Your task to perform on an android device: View the shopping cart on newegg.com. Search for razer blade on newegg.com, select the first entry, and add it to the cart. Image 0: 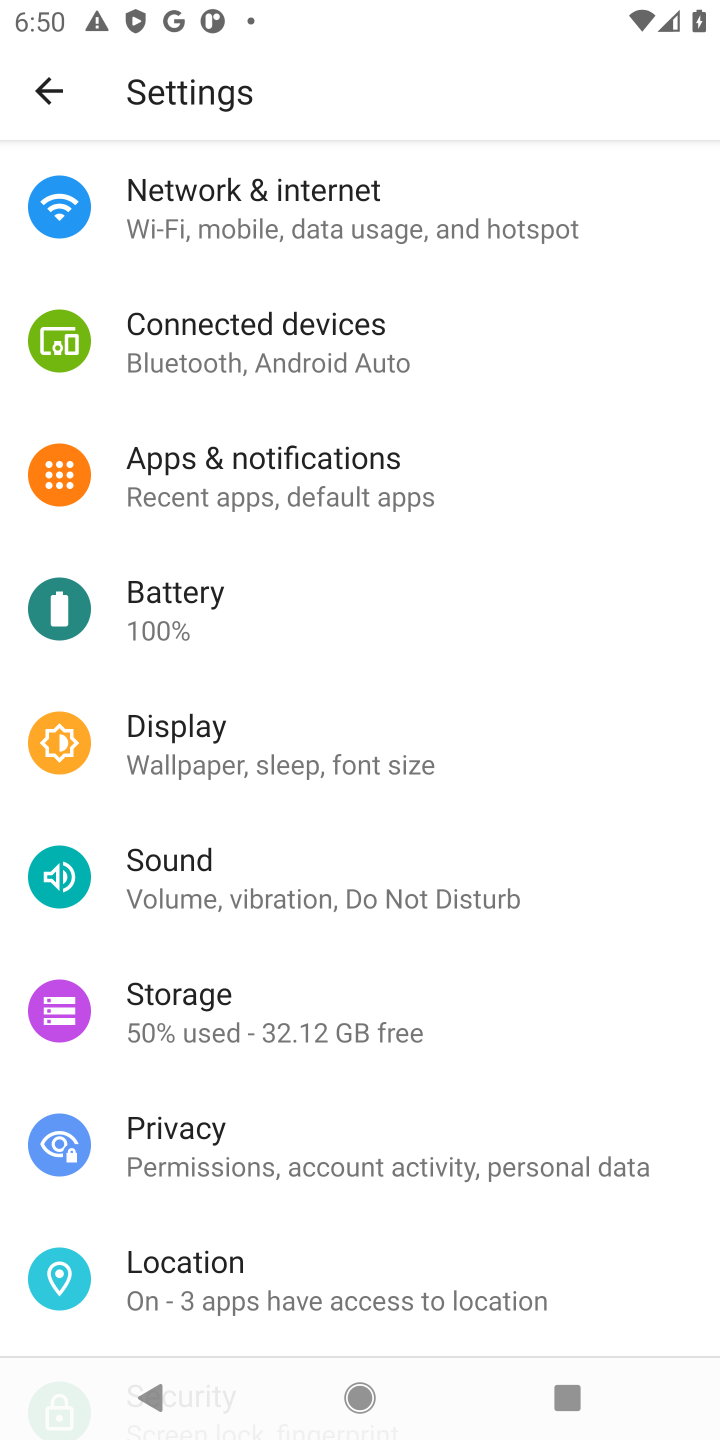
Step 0: press home button
Your task to perform on an android device: View the shopping cart on newegg.com. Search for razer blade on newegg.com, select the first entry, and add it to the cart. Image 1: 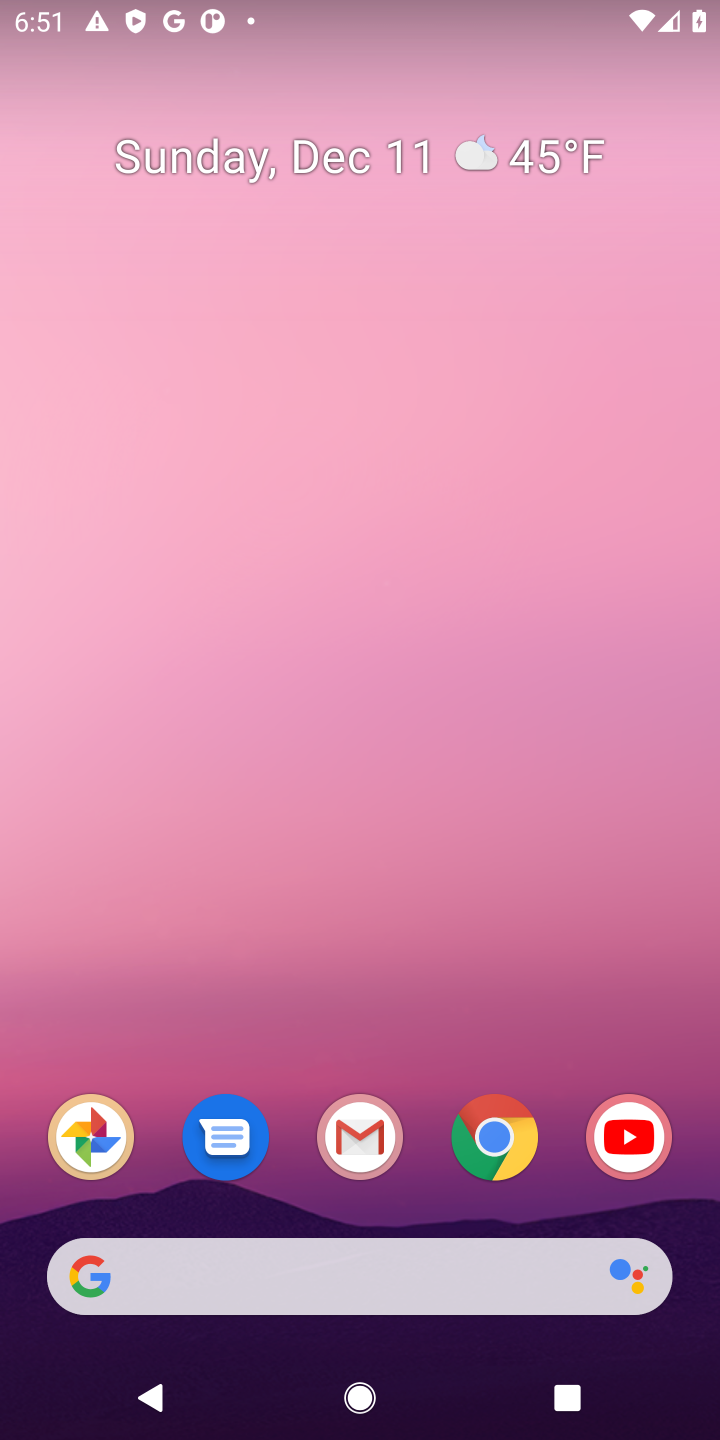
Step 1: click (516, 1127)
Your task to perform on an android device: View the shopping cart on newegg.com. Search for razer blade on newegg.com, select the first entry, and add it to the cart. Image 2: 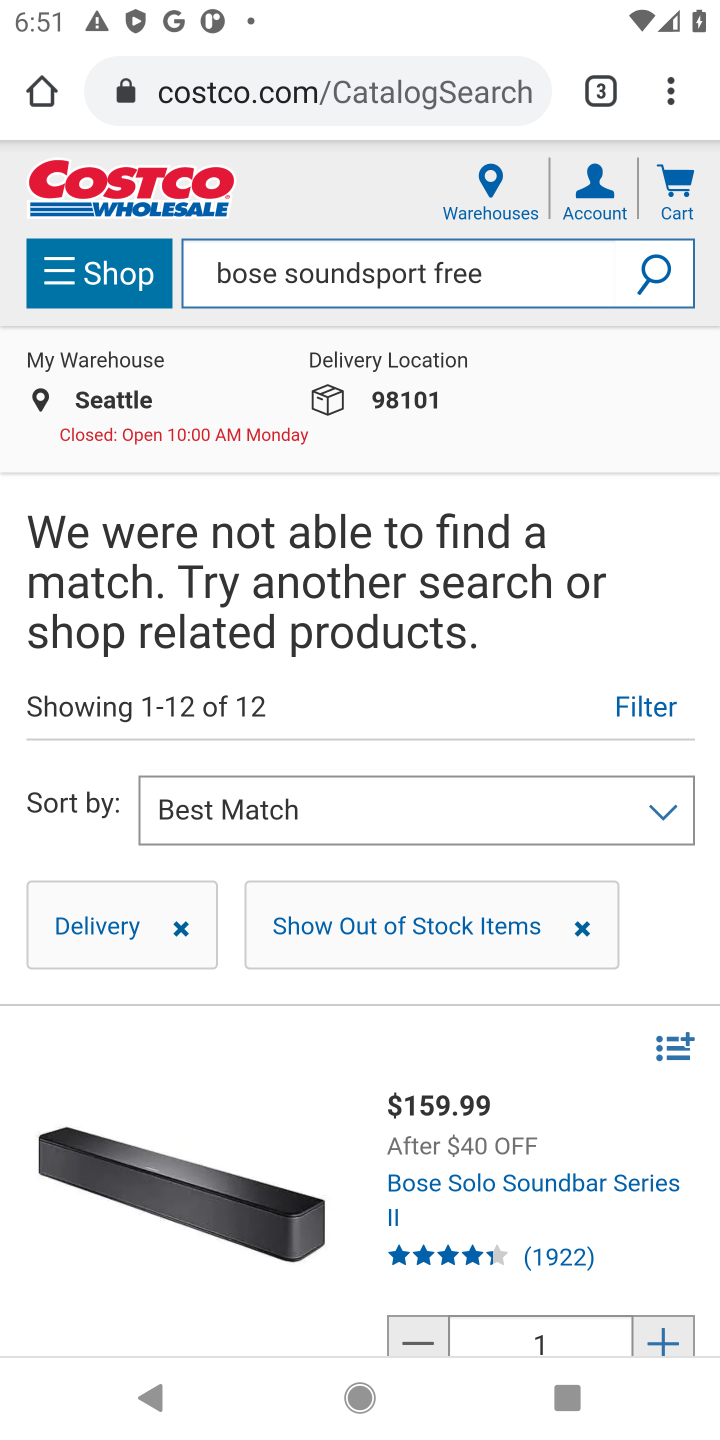
Step 2: click (359, 101)
Your task to perform on an android device: View the shopping cart on newegg.com. Search for razer blade on newegg.com, select the first entry, and add it to the cart. Image 3: 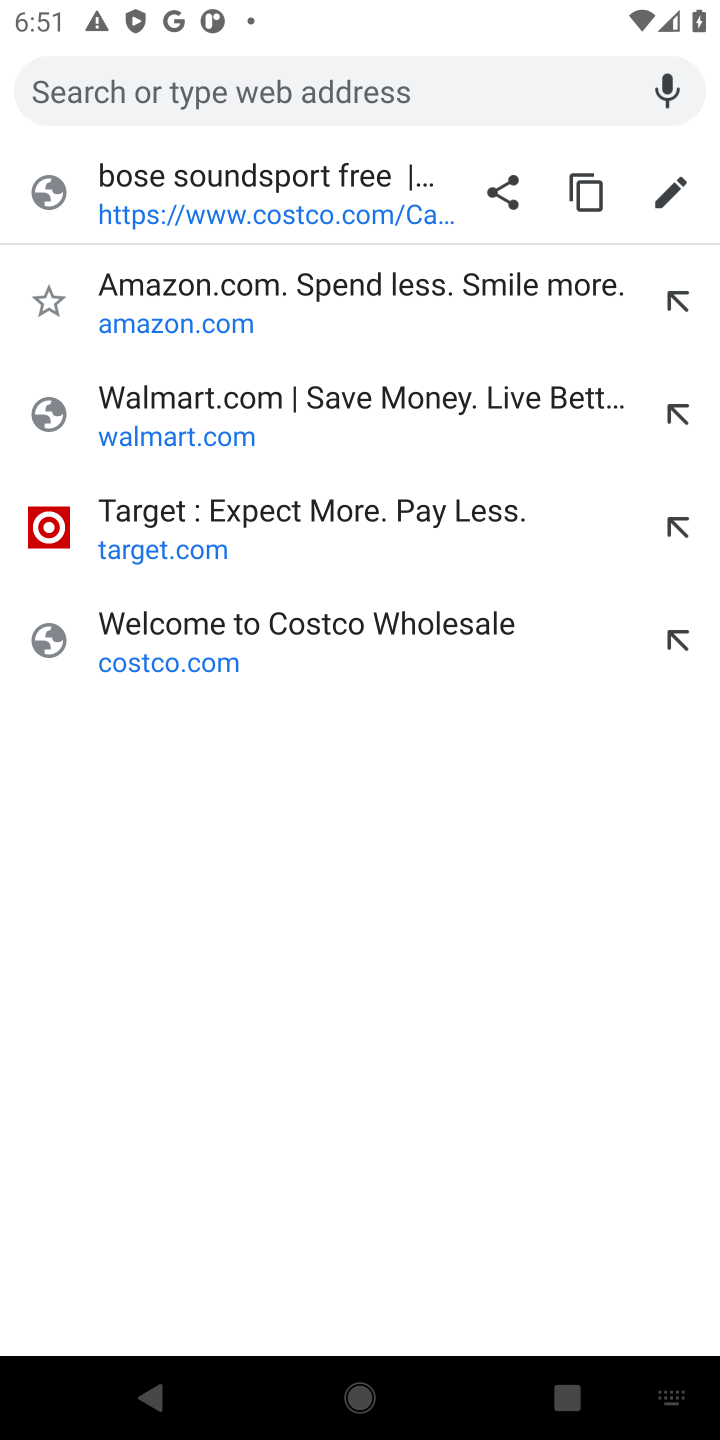
Step 3: type "newegg"
Your task to perform on an android device: View the shopping cart on newegg.com. Search for razer blade on newegg.com, select the first entry, and add it to the cart. Image 4: 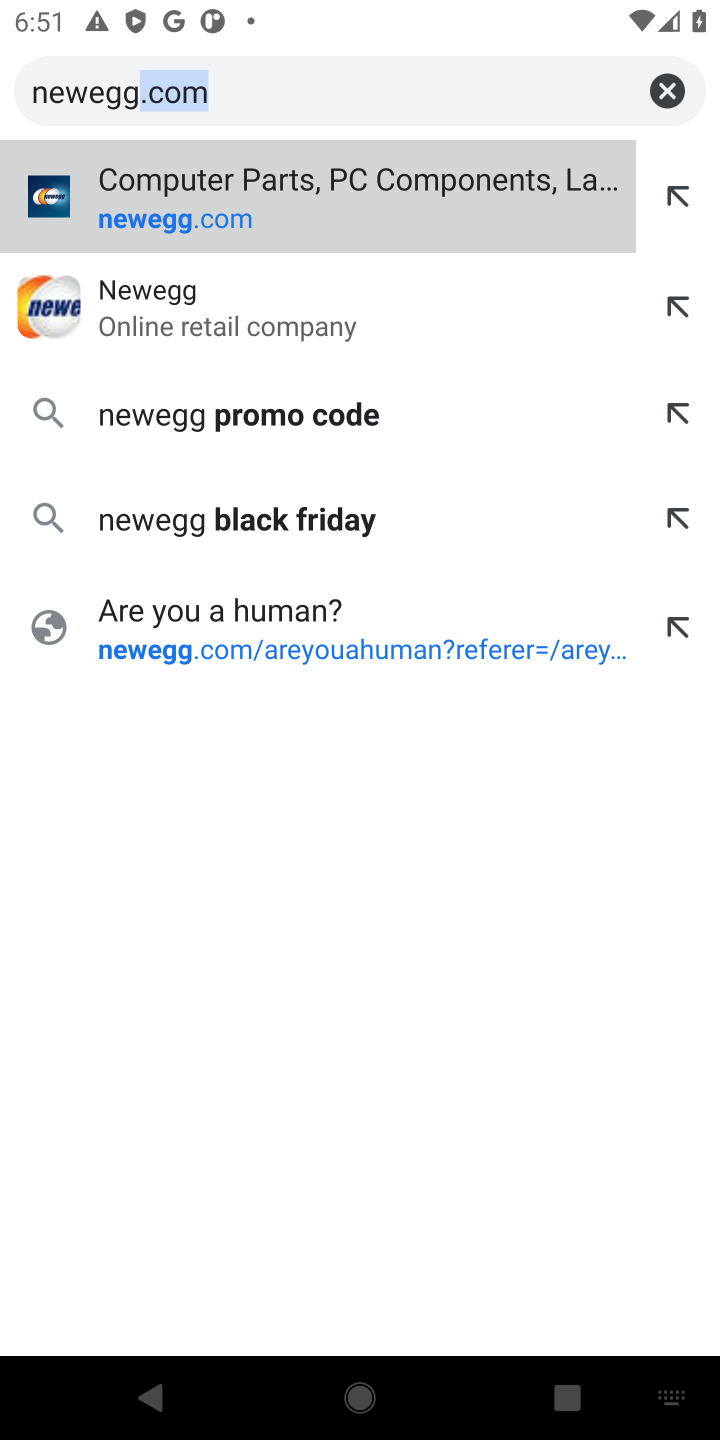
Step 4: click (250, 322)
Your task to perform on an android device: View the shopping cart on newegg.com. Search for razer blade on newegg.com, select the first entry, and add it to the cart. Image 5: 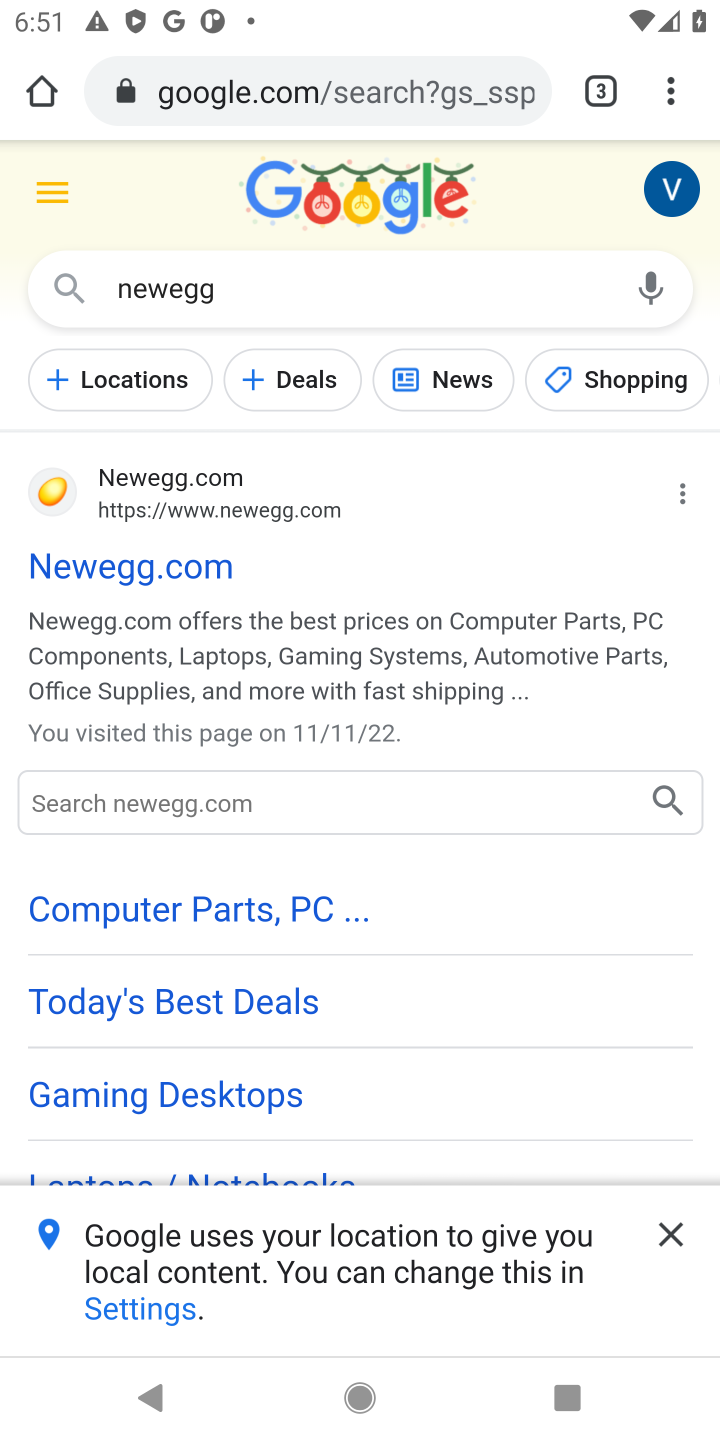
Step 5: click (145, 571)
Your task to perform on an android device: View the shopping cart on newegg.com. Search for razer blade on newegg.com, select the first entry, and add it to the cart. Image 6: 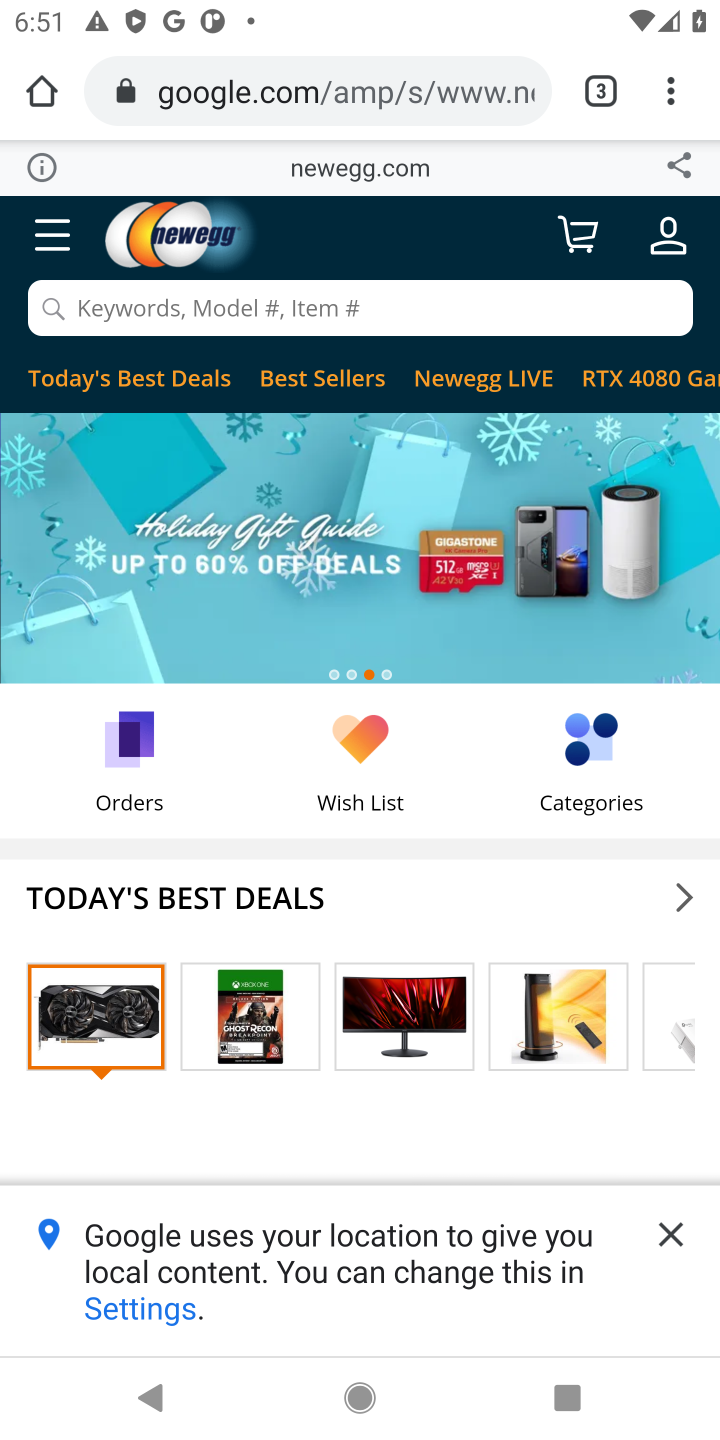
Step 6: click (573, 235)
Your task to perform on an android device: View the shopping cart on newegg.com. Search for razer blade on newegg.com, select the first entry, and add it to the cart. Image 7: 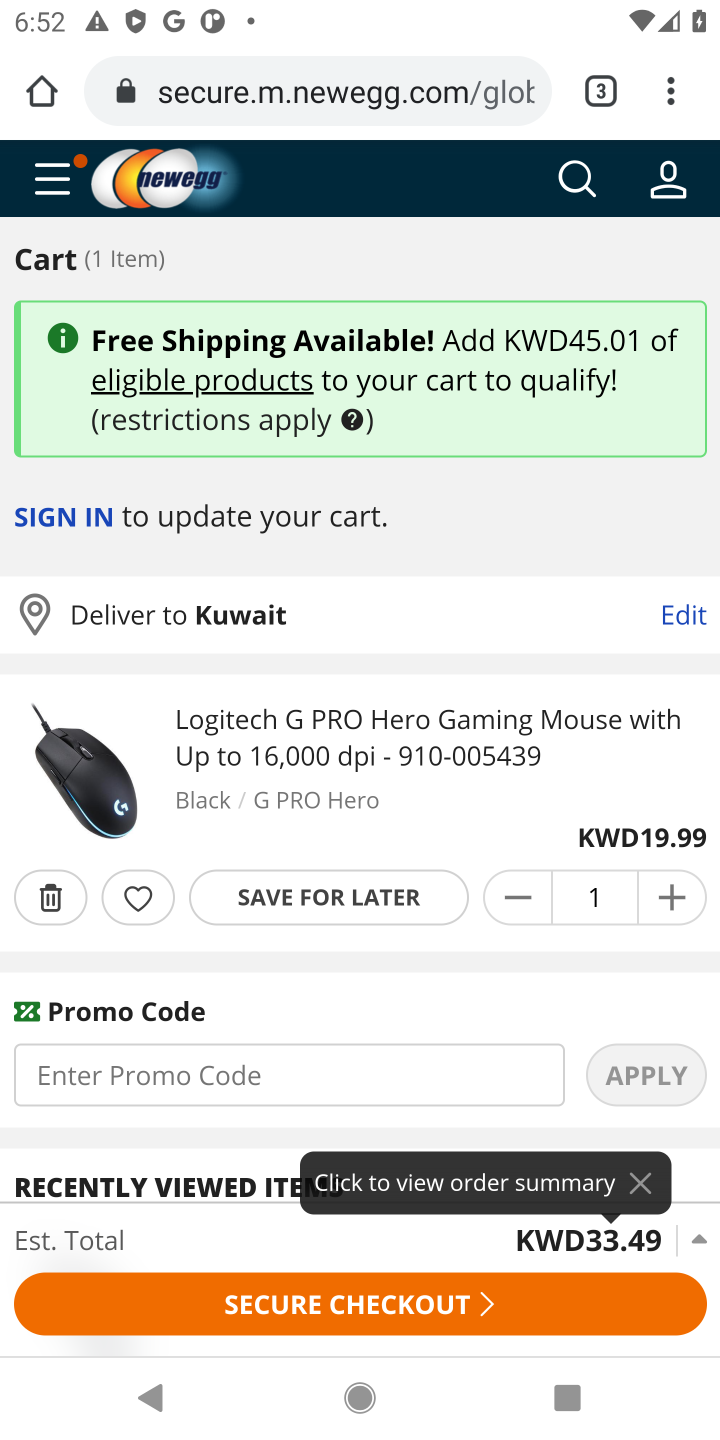
Step 7: click (596, 190)
Your task to perform on an android device: View the shopping cart on newegg.com. Search for razer blade on newegg.com, select the first entry, and add it to the cart. Image 8: 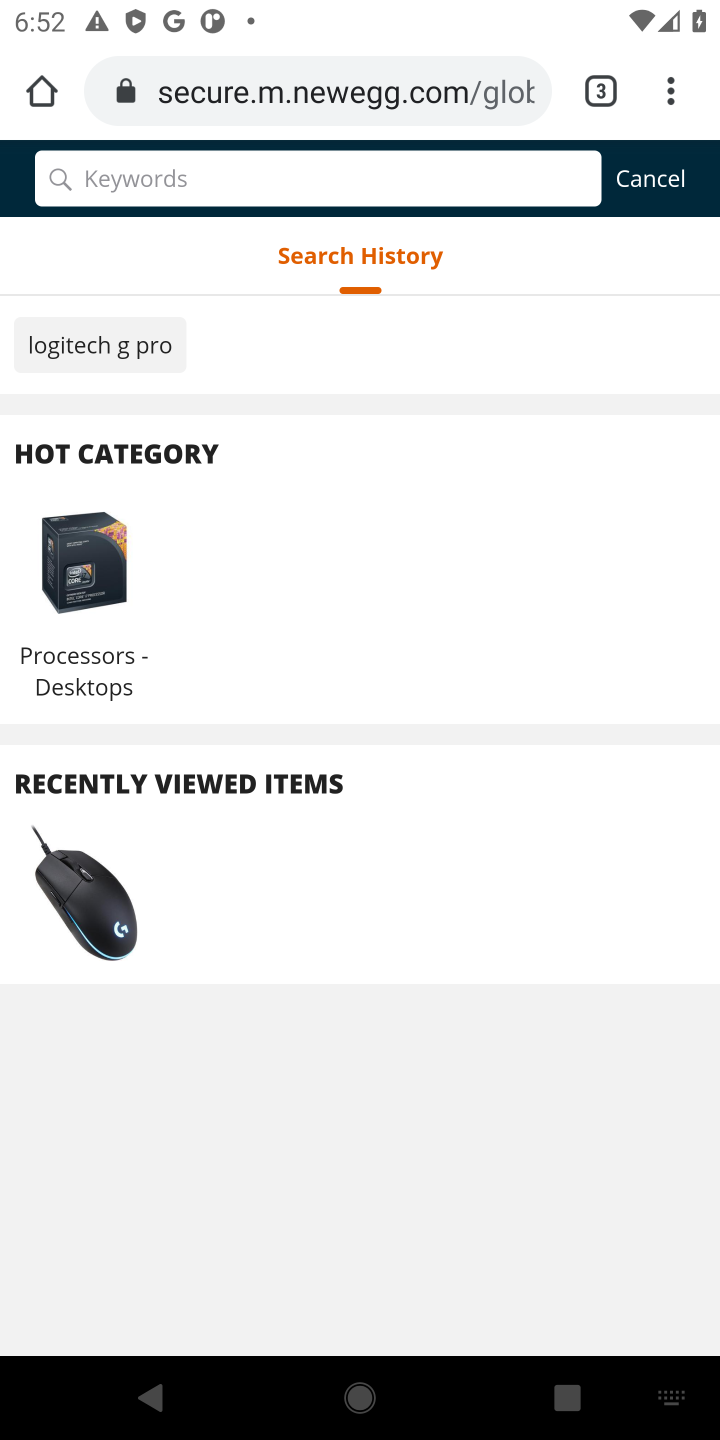
Step 8: type "razer blade"
Your task to perform on an android device: View the shopping cart on newegg.com. Search for razer blade on newegg.com, select the first entry, and add it to the cart. Image 9: 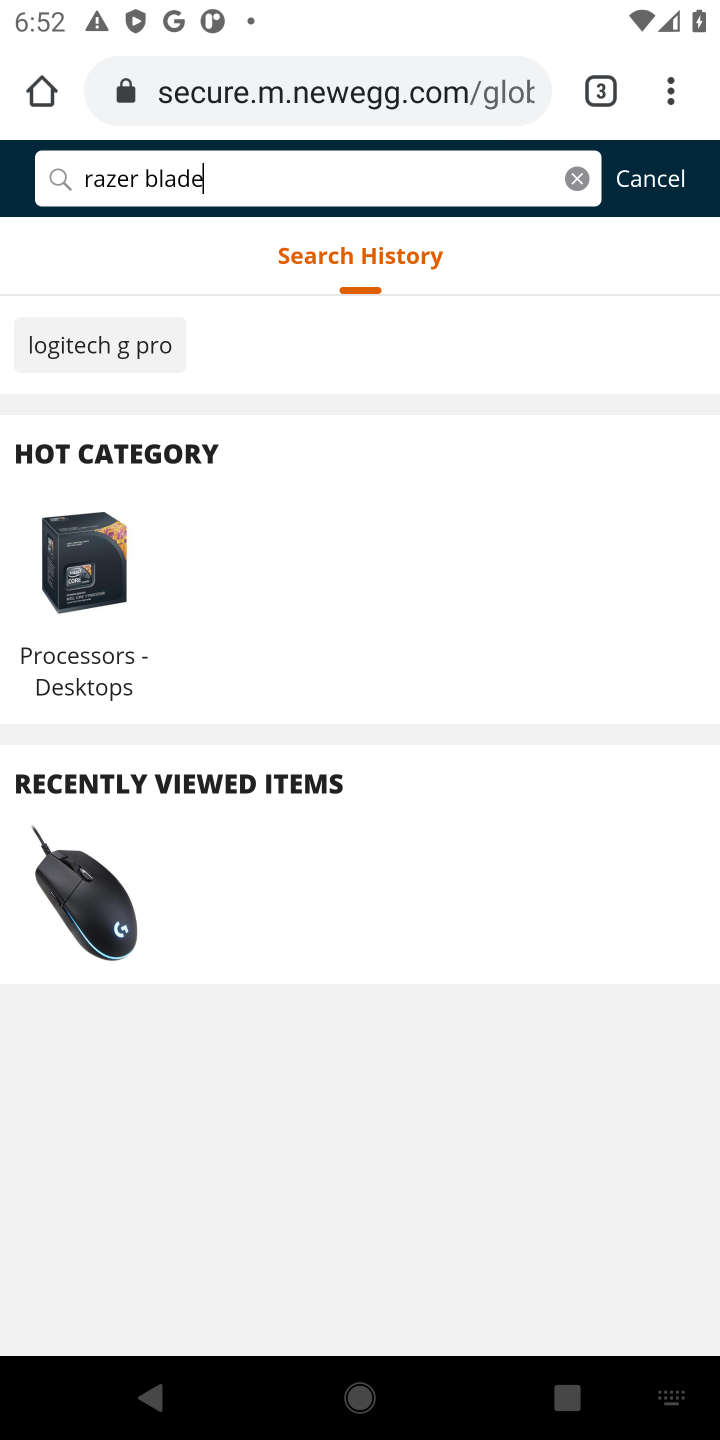
Step 9: type ""
Your task to perform on an android device: View the shopping cart on newegg.com. Search for razer blade on newegg.com, select the first entry, and add it to the cart. Image 10: 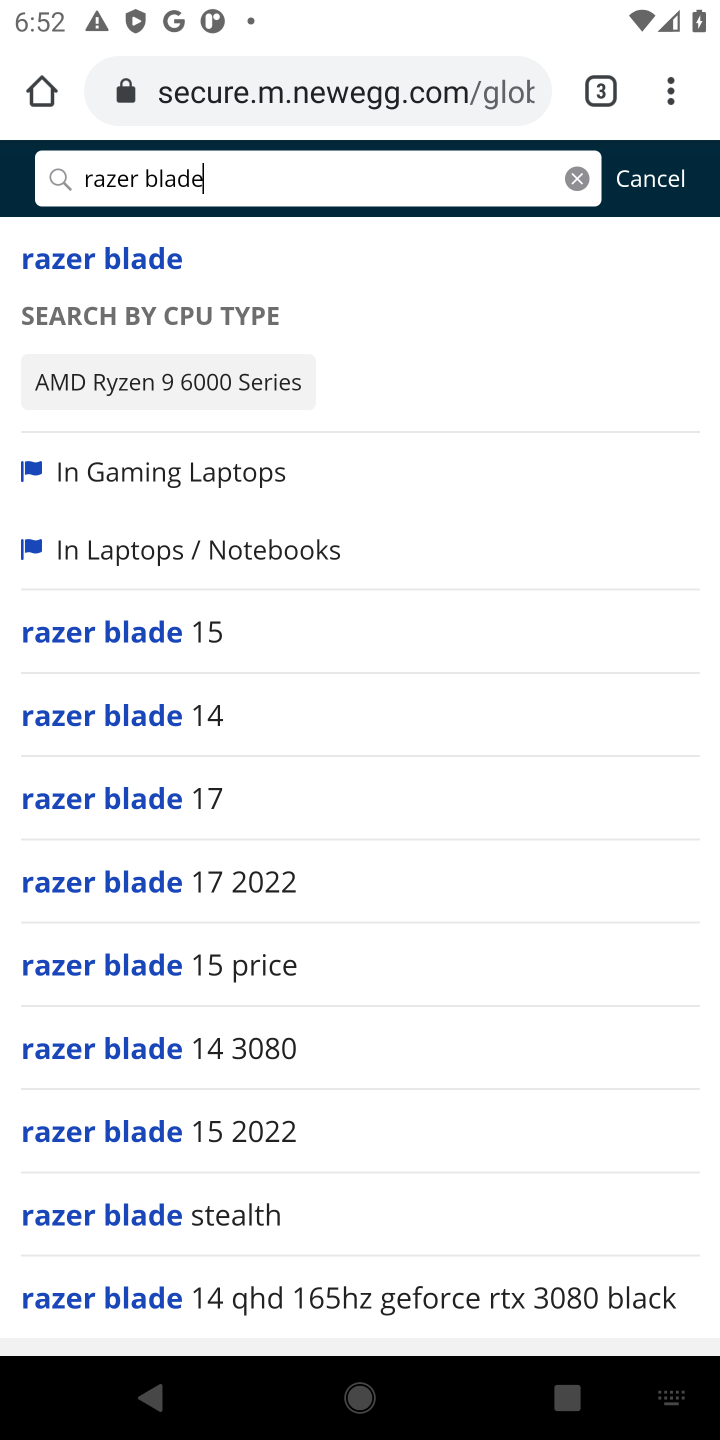
Step 10: click (178, 259)
Your task to perform on an android device: View the shopping cart on newegg.com. Search for razer blade on newegg.com, select the first entry, and add it to the cart. Image 11: 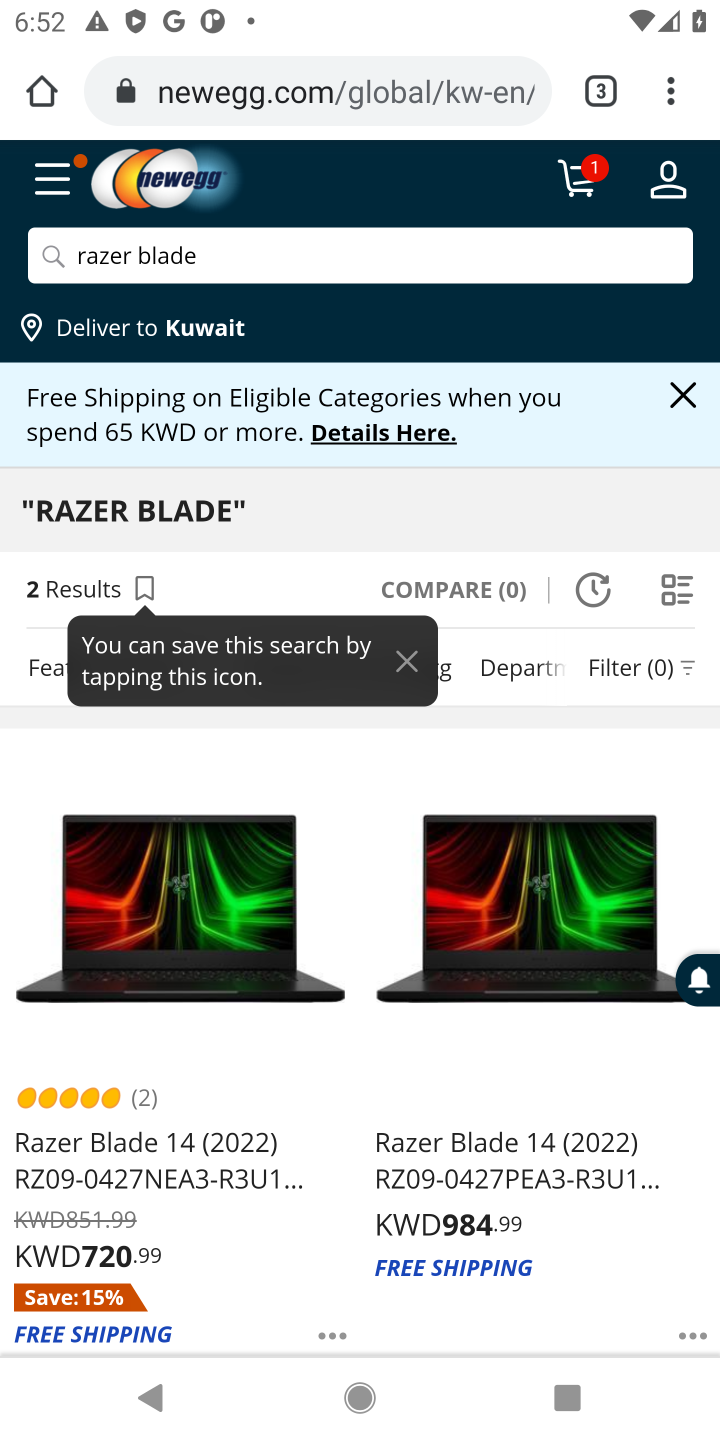
Step 11: click (190, 1147)
Your task to perform on an android device: View the shopping cart on newegg.com. Search for razer blade on newegg.com, select the first entry, and add it to the cart. Image 12: 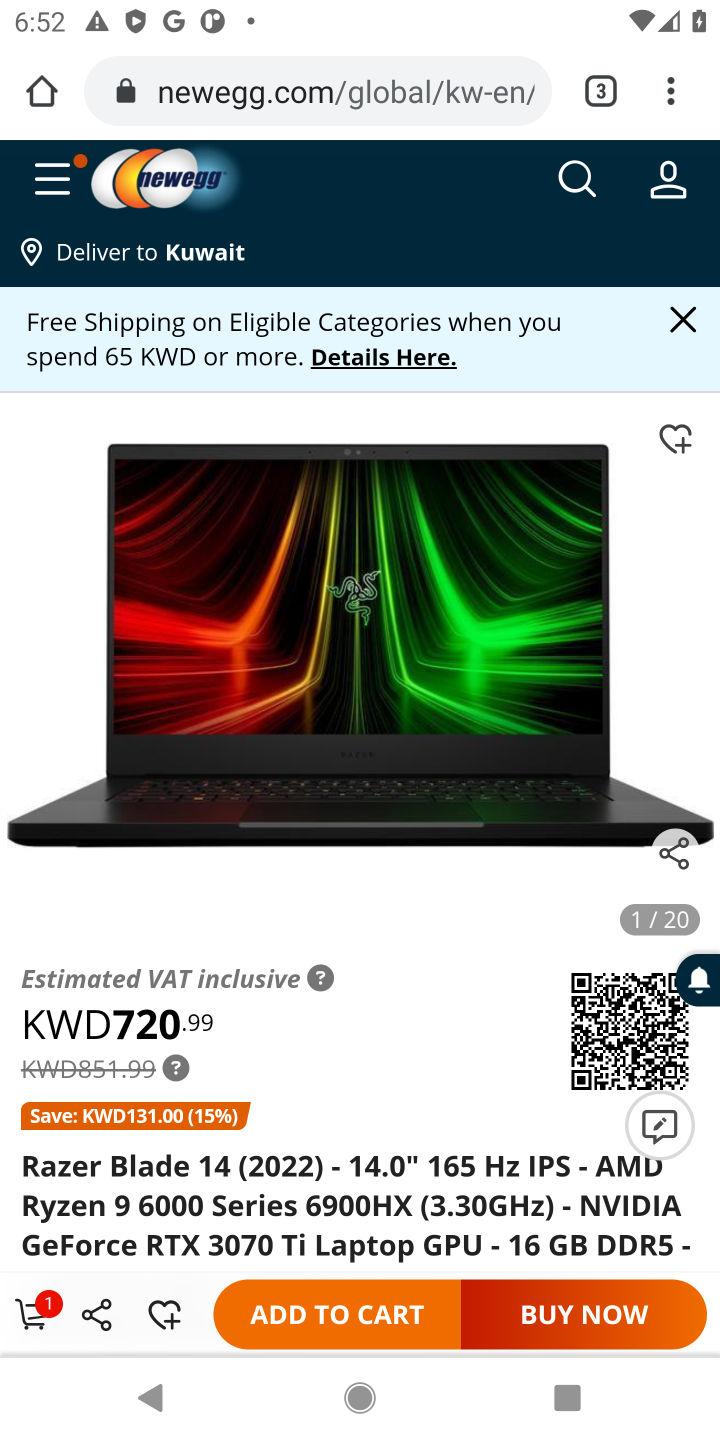
Step 12: click (335, 1320)
Your task to perform on an android device: View the shopping cart on newegg.com. Search for razer blade on newegg.com, select the first entry, and add it to the cart. Image 13: 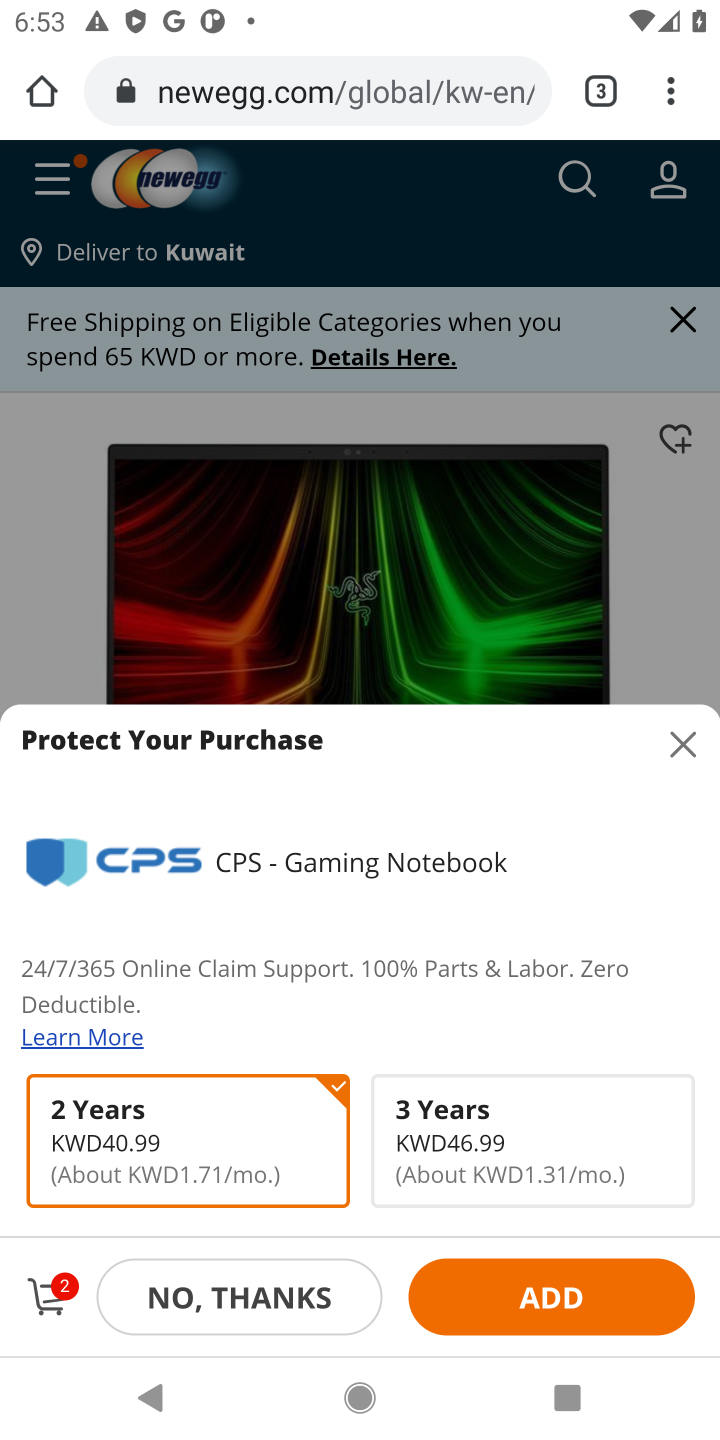
Step 13: task complete